Your task to perform on an android device: install app "NewsBreak: Local News & Alerts" Image 0: 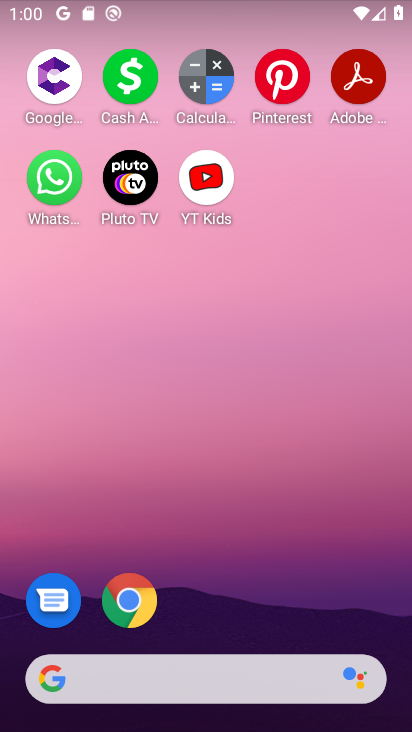
Step 0: drag from (221, 602) to (214, 143)
Your task to perform on an android device: install app "NewsBreak: Local News & Alerts" Image 1: 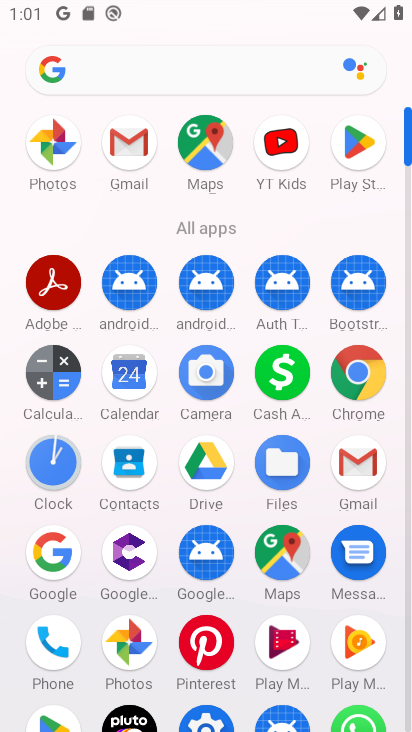
Step 1: click (348, 147)
Your task to perform on an android device: install app "NewsBreak: Local News & Alerts" Image 2: 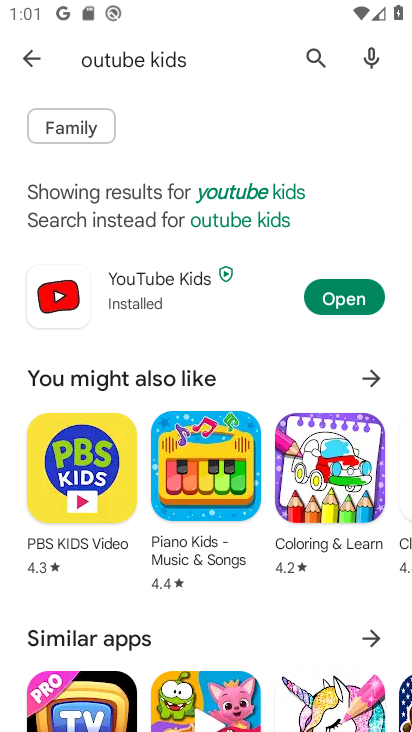
Step 2: click (320, 53)
Your task to perform on an android device: install app "NewsBreak: Local News & Alerts" Image 3: 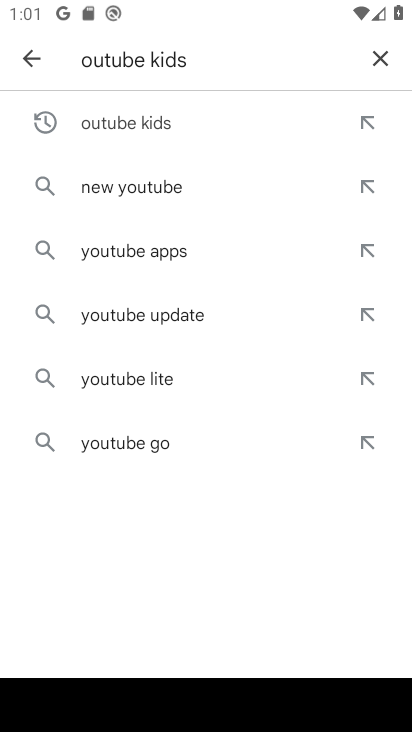
Step 3: click (380, 55)
Your task to perform on an android device: install app "NewsBreak: Local News & Alerts" Image 4: 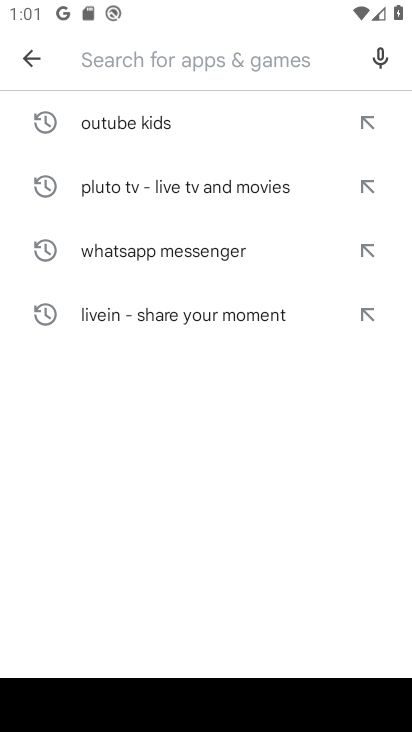
Step 4: type "NewsBreak: Local News & Alerts"
Your task to perform on an android device: install app "NewsBreak: Local News & Alerts" Image 5: 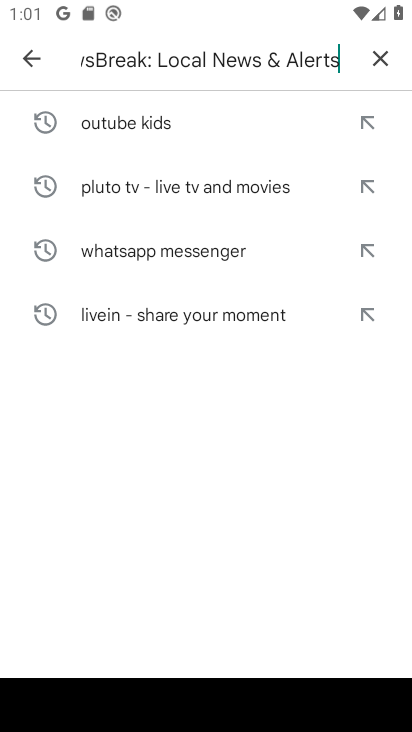
Step 5: type ""
Your task to perform on an android device: install app "NewsBreak: Local News & Alerts" Image 6: 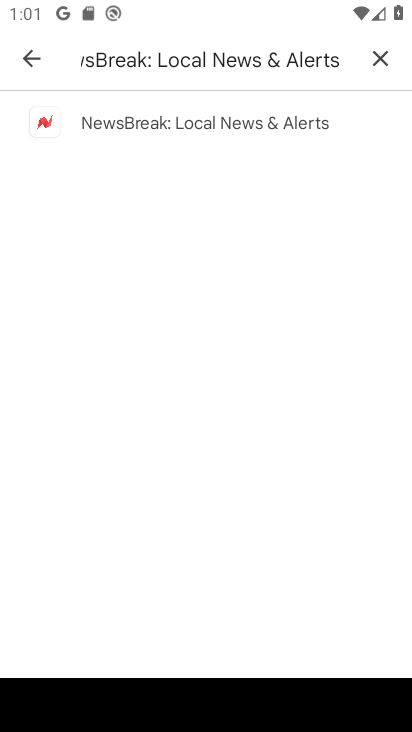
Step 6: click (268, 117)
Your task to perform on an android device: install app "NewsBreak: Local News & Alerts" Image 7: 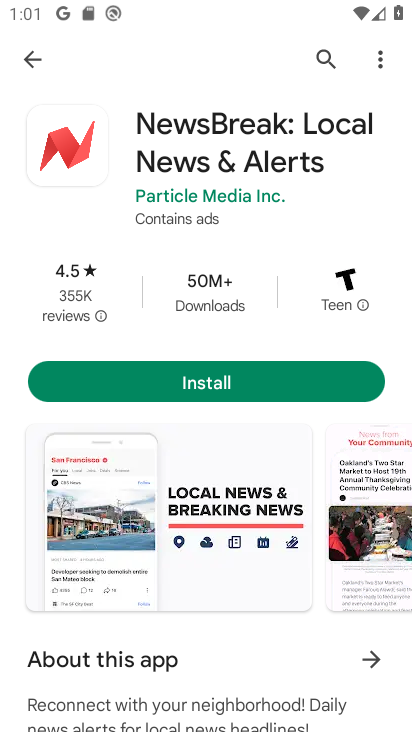
Step 7: click (223, 379)
Your task to perform on an android device: install app "NewsBreak: Local News & Alerts" Image 8: 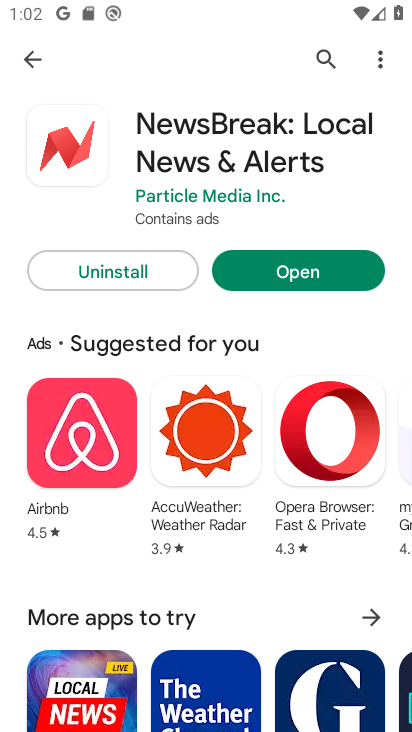
Step 8: task complete